Your task to perform on an android device: turn notification dots on Image 0: 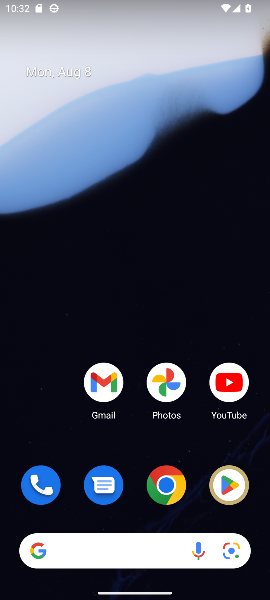
Step 0: drag from (139, 520) to (173, 3)
Your task to perform on an android device: turn notification dots on Image 1: 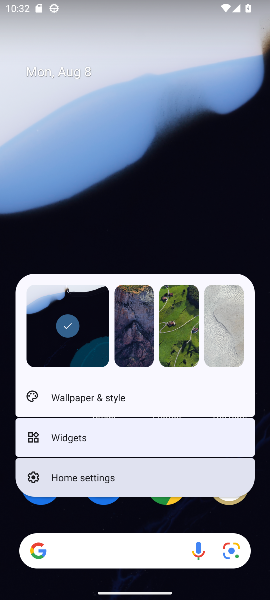
Step 1: click (188, 188)
Your task to perform on an android device: turn notification dots on Image 2: 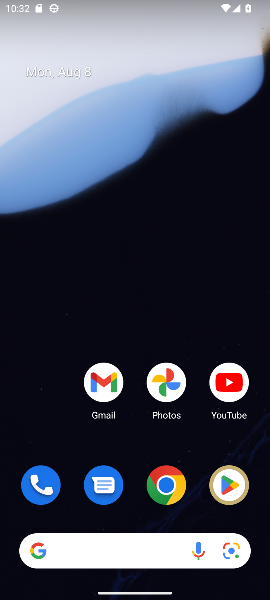
Step 2: drag from (127, 506) to (151, 72)
Your task to perform on an android device: turn notification dots on Image 3: 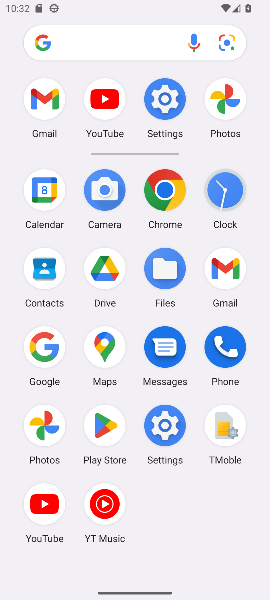
Step 3: click (175, 425)
Your task to perform on an android device: turn notification dots on Image 4: 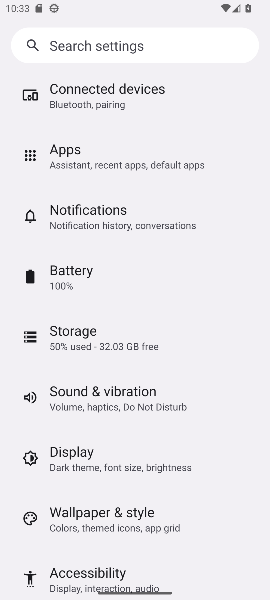
Step 4: drag from (194, 504) to (174, 23)
Your task to perform on an android device: turn notification dots on Image 5: 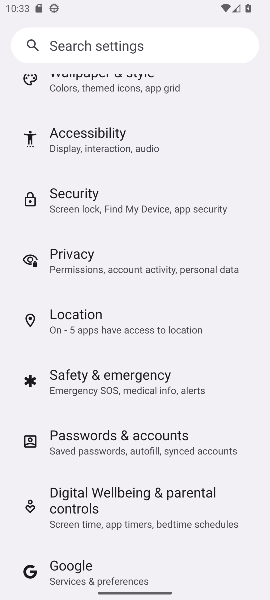
Step 5: drag from (144, 116) to (145, 473)
Your task to perform on an android device: turn notification dots on Image 6: 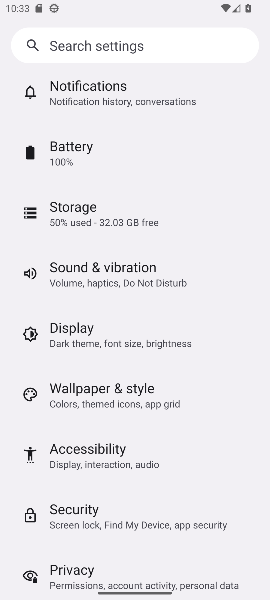
Step 6: click (98, 93)
Your task to perform on an android device: turn notification dots on Image 7: 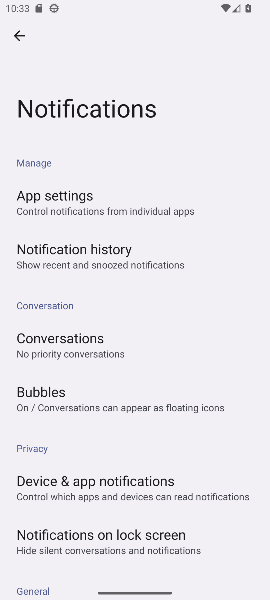
Step 7: drag from (177, 495) to (195, 198)
Your task to perform on an android device: turn notification dots on Image 8: 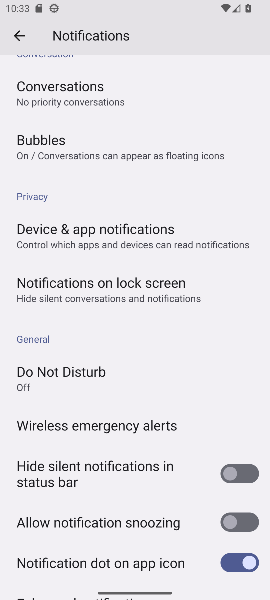
Step 8: drag from (91, 510) to (127, 275)
Your task to perform on an android device: turn notification dots on Image 9: 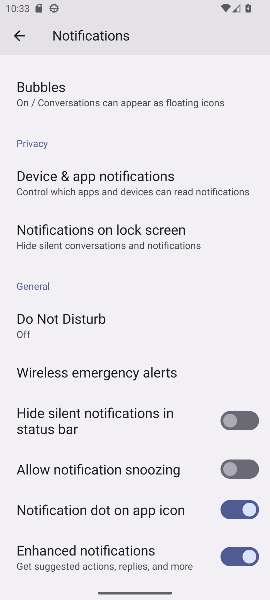
Step 9: drag from (144, 516) to (151, 273)
Your task to perform on an android device: turn notification dots on Image 10: 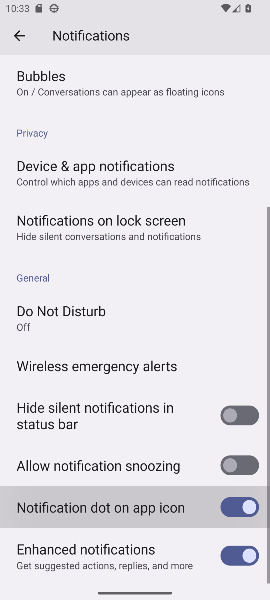
Step 10: click (159, 231)
Your task to perform on an android device: turn notification dots on Image 11: 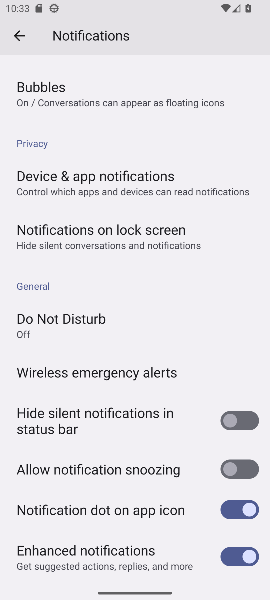
Step 11: task complete